Your task to perform on an android device: toggle notifications settings in the gmail app Image 0: 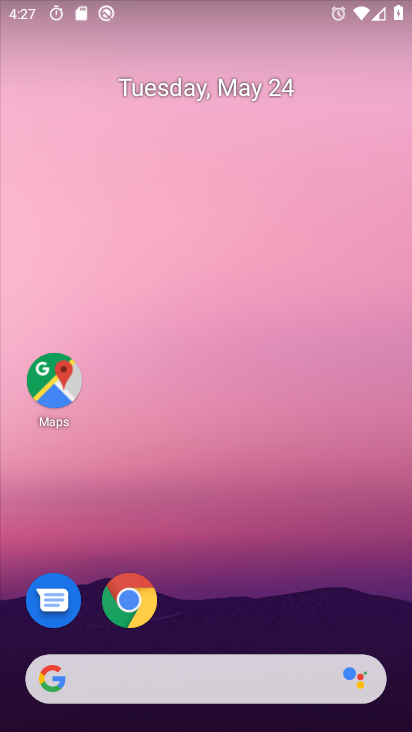
Step 0: drag from (206, 625) to (194, 0)
Your task to perform on an android device: toggle notifications settings in the gmail app Image 1: 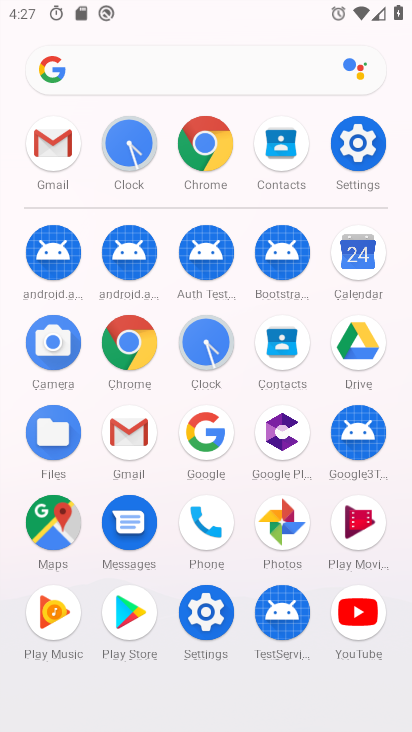
Step 1: click (118, 418)
Your task to perform on an android device: toggle notifications settings in the gmail app Image 2: 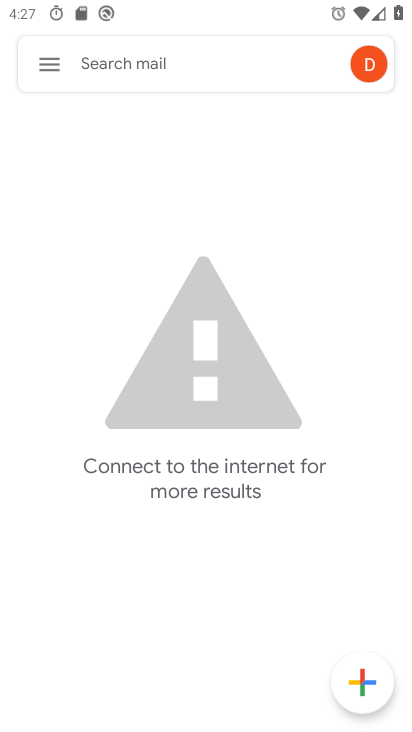
Step 2: click (55, 65)
Your task to perform on an android device: toggle notifications settings in the gmail app Image 3: 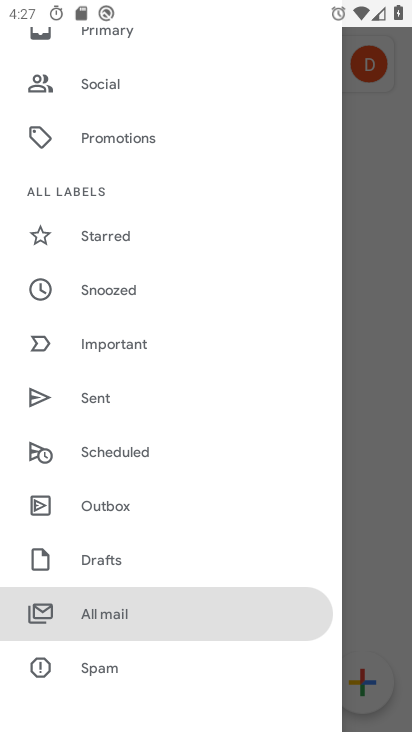
Step 3: drag from (237, 590) to (272, 34)
Your task to perform on an android device: toggle notifications settings in the gmail app Image 4: 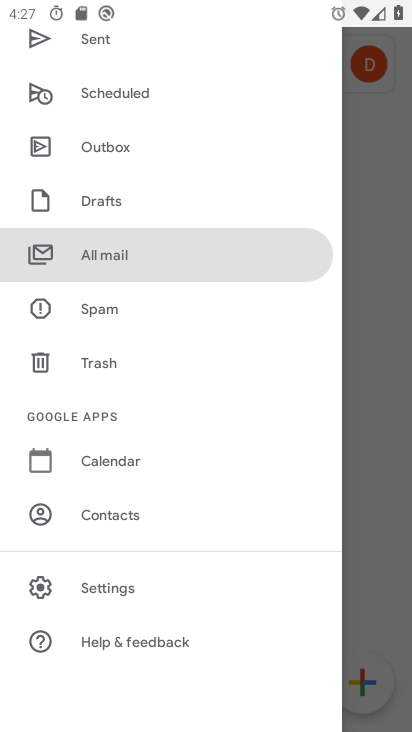
Step 4: click (129, 583)
Your task to perform on an android device: toggle notifications settings in the gmail app Image 5: 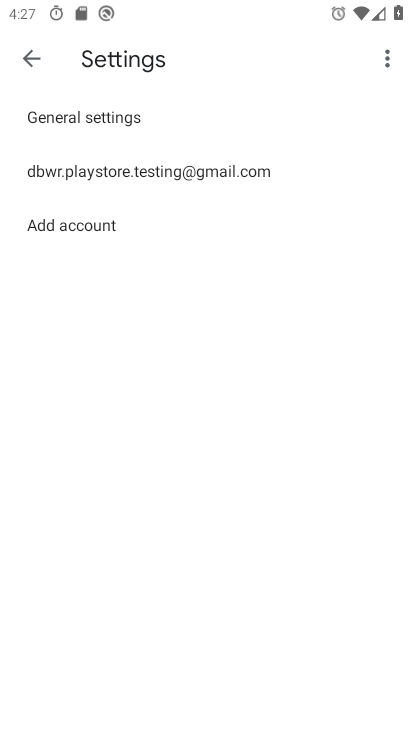
Step 5: click (107, 176)
Your task to perform on an android device: toggle notifications settings in the gmail app Image 6: 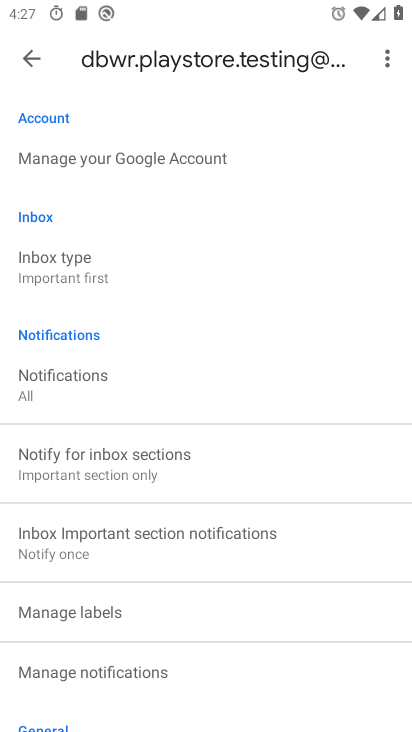
Step 6: click (148, 671)
Your task to perform on an android device: toggle notifications settings in the gmail app Image 7: 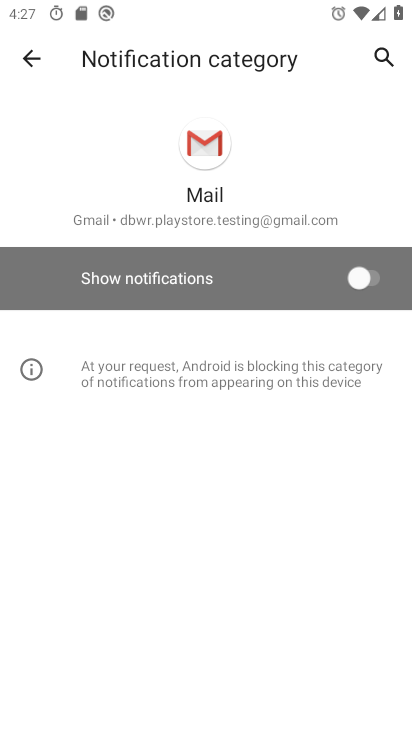
Step 7: click (368, 276)
Your task to perform on an android device: toggle notifications settings in the gmail app Image 8: 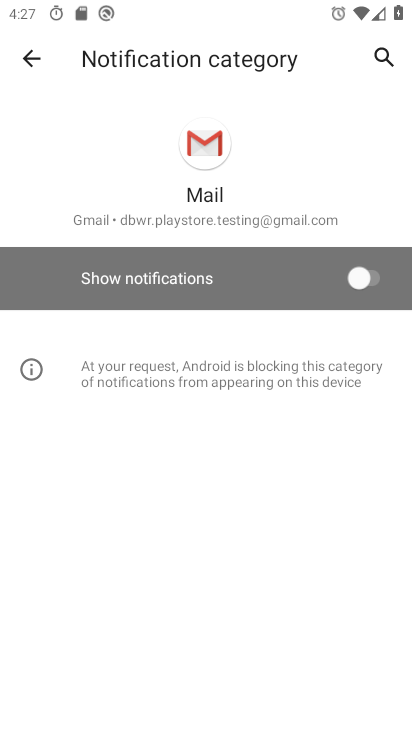
Step 8: click (368, 276)
Your task to perform on an android device: toggle notifications settings in the gmail app Image 9: 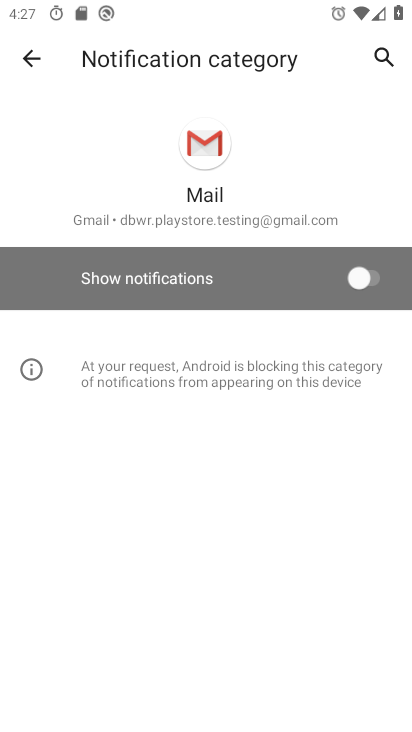
Step 9: click (368, 276)
Your task to perform on an android device: toggle notifications settings in the gmail app Image 10: 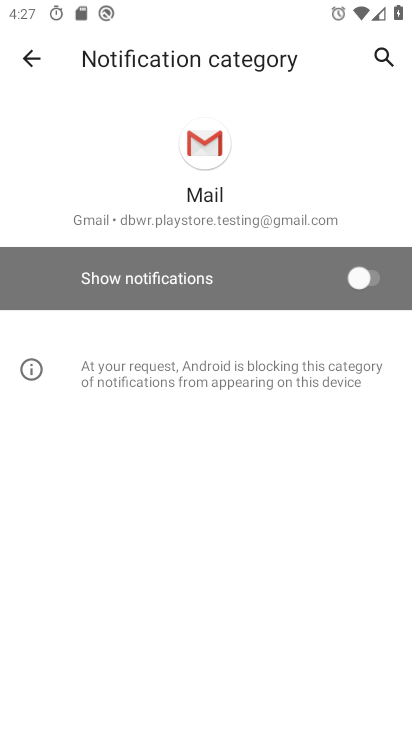
Step 10: task complete